Your task to perform on an android device: turn off notifications settings in the gmail app Image 0: 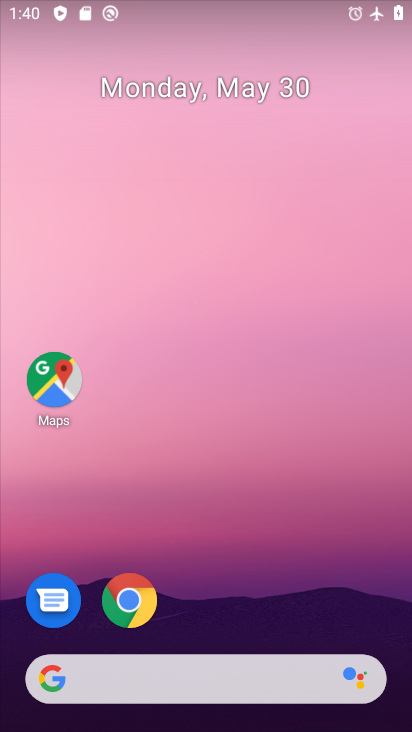
Step 0: drag from (228, 618) to (338, 49)
Your task to perform on an android device: turn off notifications settings in the gmail app Image 1: 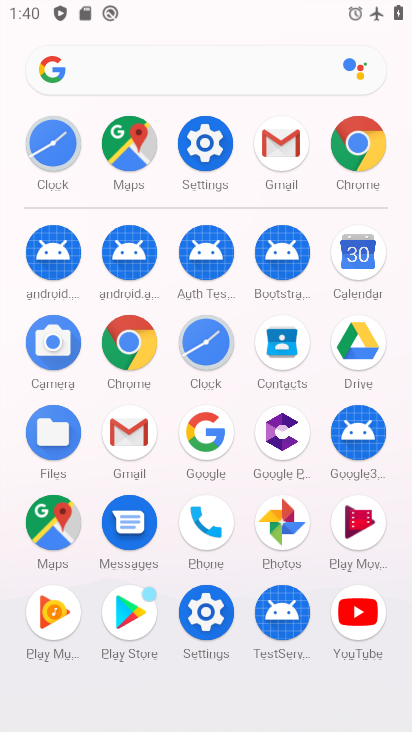
Step 1: click (135, 439)
Your task to perform on an android device: turn off notifications settings in the gmail app Image 2: 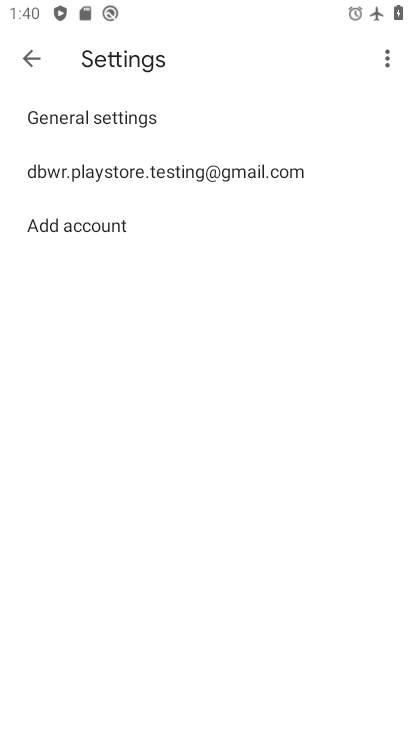
Step 2: click (34, 115)
Your task to perform on an android device: turn off notifications settings in the gmail app Image 3: 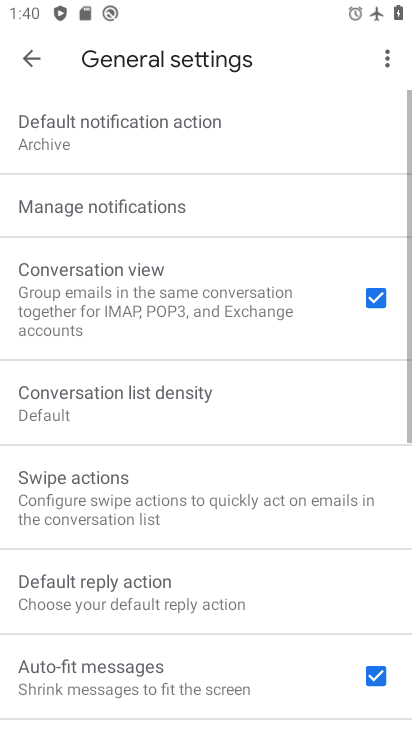
Step 3: click (91, 210)
Your task to perform on an android device: turn off notifications settings in the gmail app Image 4: 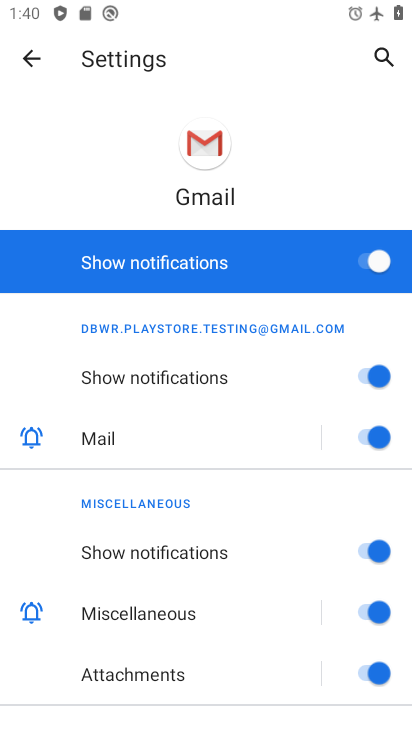
Step 4: click (362, 253)
Your task to perform on an android device: turn off notifications settings in the gmail app Image 5: 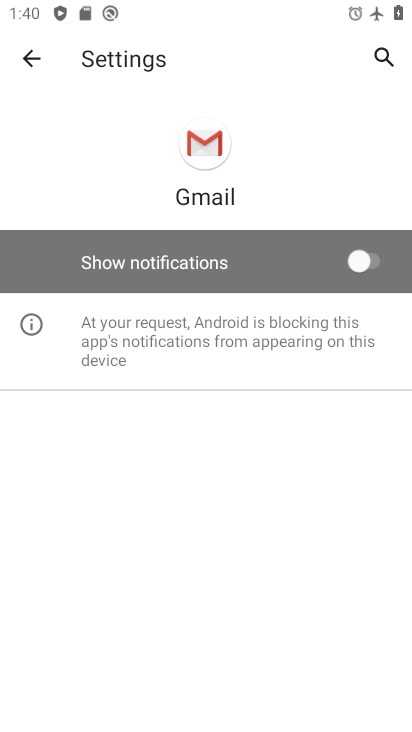
Step 5: task complete